Your task to perform on an android device: move a message to another label in the gmail app Image 0: 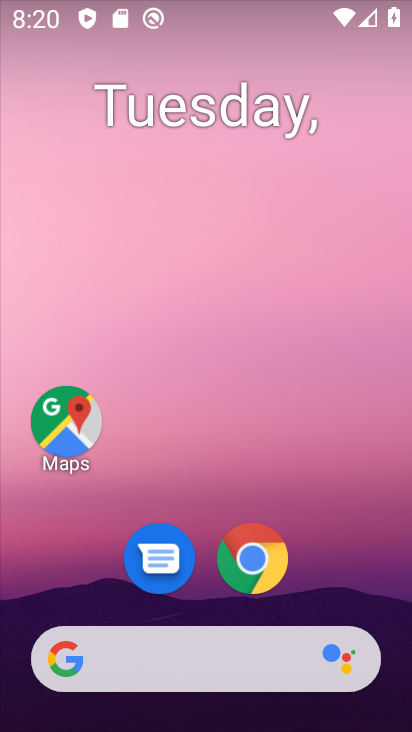
Step 0: drag from (200, 600) to (207, 221)
Your task to perform on an android device: move a message to another label in the gmail app Image 1: 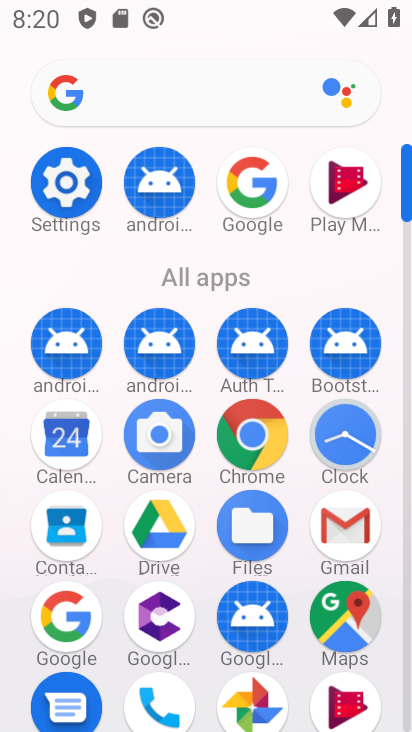
Step 1: click (352, 525)
Your task to perform on an android device: move a message to another label in the gmail app Image 2: 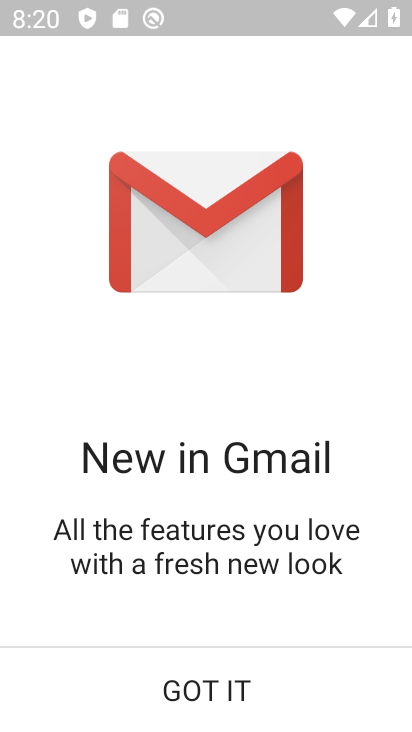
Step 2: click (289, 661)
Your task to perform on an android device: move a message to another label in the gmail app Image 3: 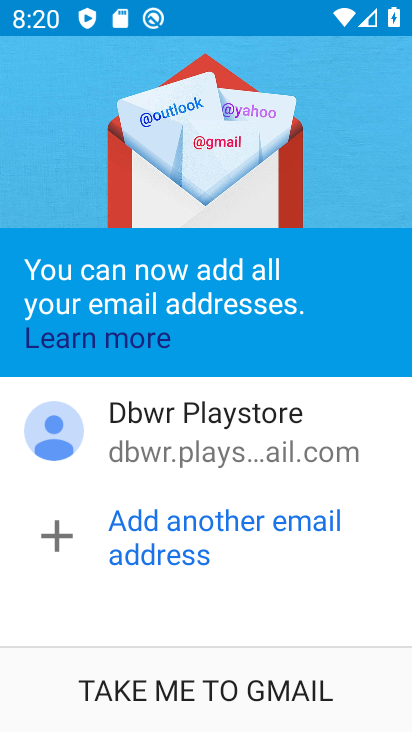
Step 3: click (289, 661)
Your task to perform on an android device: move a message to another label in the gmail app Image 4: 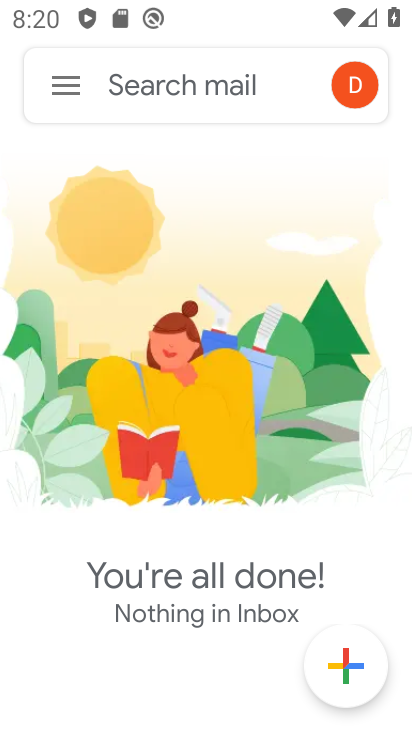
Step 4: click (60, 89)
Your task to perform on an android device: move a message to another label in the gmail app Image 5: 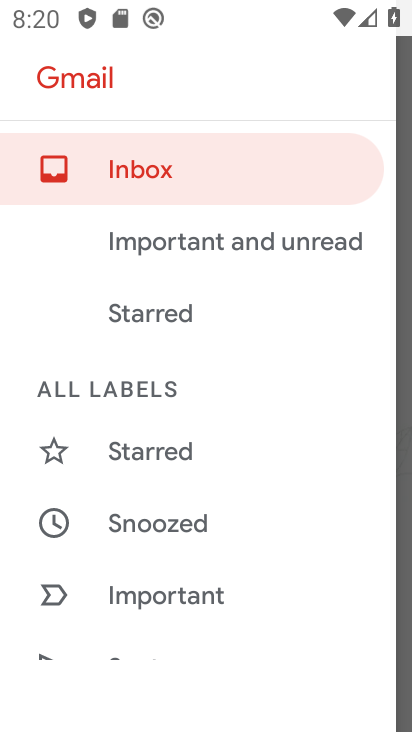
Step 5: drag from (176, 511) to (242, 264)
Your task to perform on an android device: move a message to another label in the gmail app Image 6: 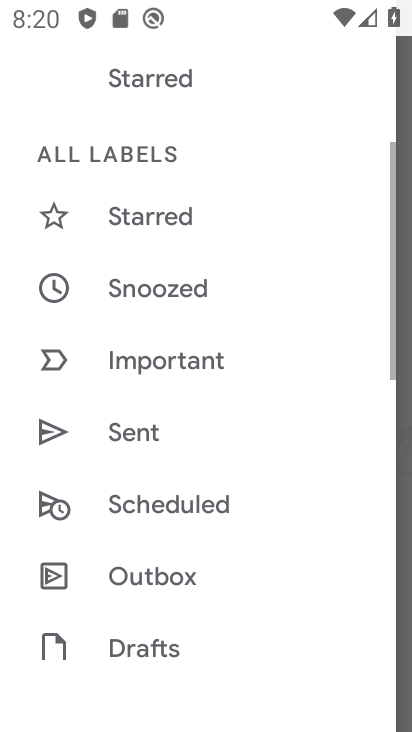
Step 6: drag from (230, 583) to (236, 332)
Your task to perform on an android device: move a message to another label in the gmail app Image 7: 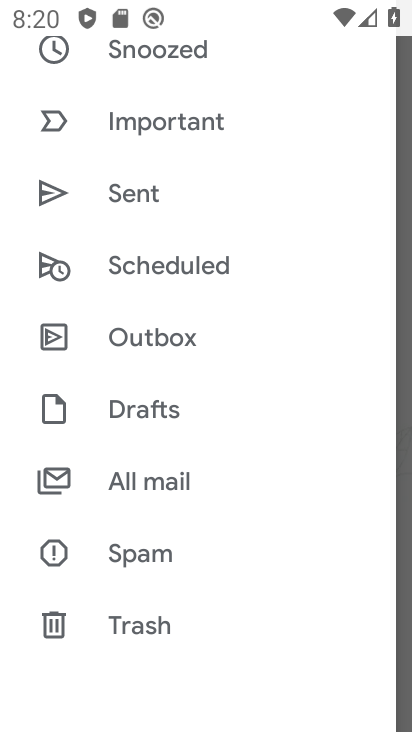
Step 7: drag from (183, 654) to (208, 306)
Your task to perform on an android device: move a message to another label in the gmail app Image 8: 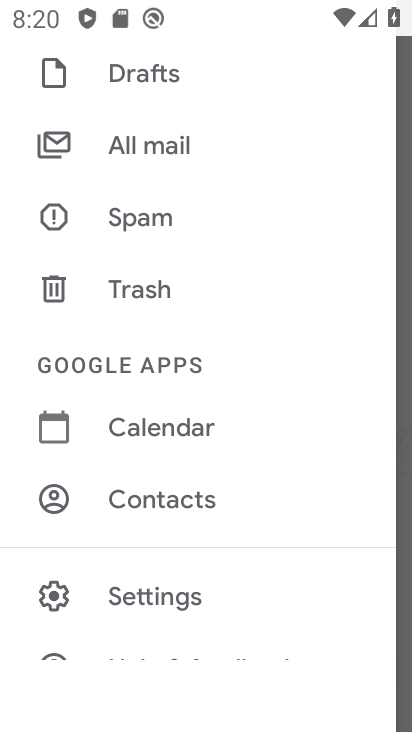
Step 8: drag from (164, 599) to (220, 201)
Your task to perform on an android device: move a message to another label in the gmail app Image 9: 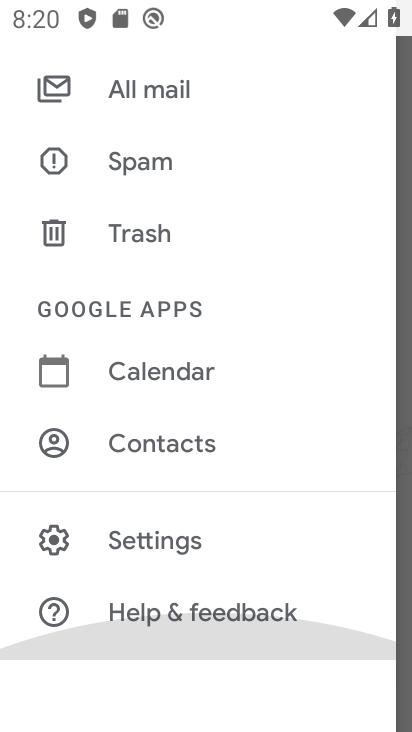
Step 9: drag from (227, 195) to (234, 592)
Your task to perform on an android device: move a message to another label in the gmail app Image 10: 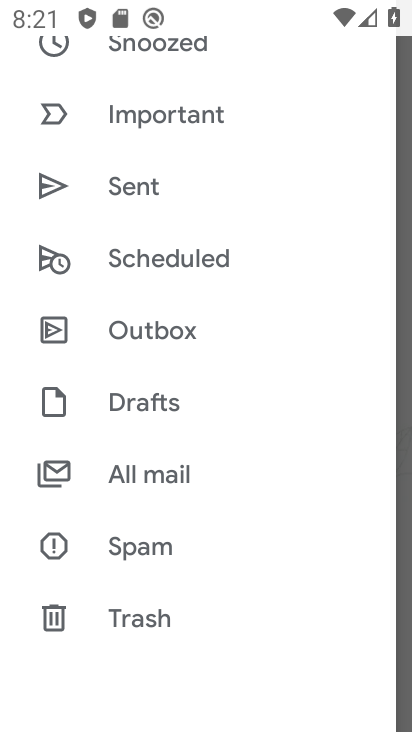
Step 10: click (170, 506)
Your task to perform on an android device: move a message to another label in the gmail app Image 11: 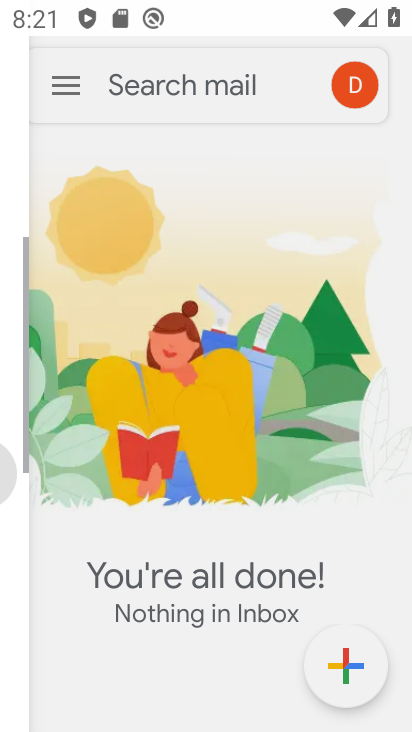
Step 11: click (175, 479)
Your task to perform on an android device: move a message to another label in the gmail app Image 12: 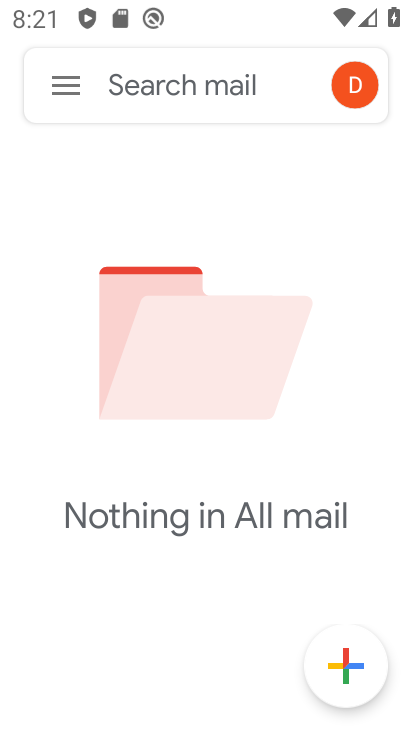
Step 12: task complete